Your task to perform on an android device: Open the map Image 0: 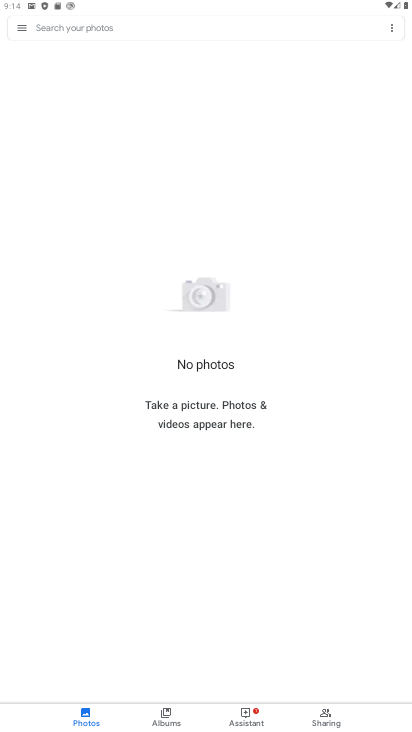
Step 0: press home button
Your task to perform on an android device: Open the map Image 1: 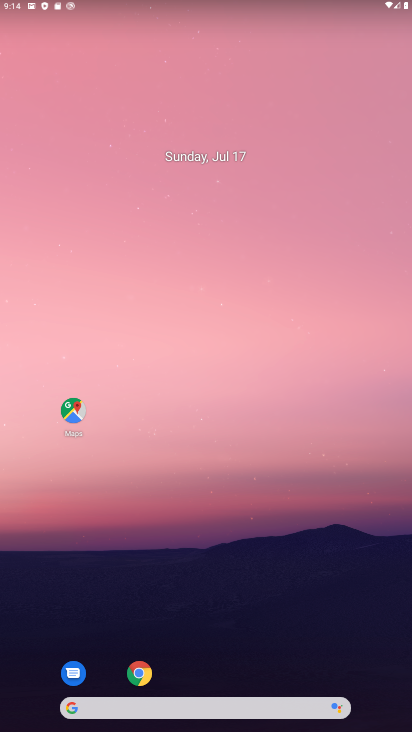
Step 1: click (74, 411)
Your task to perform on an android device: Open the map Image 2: 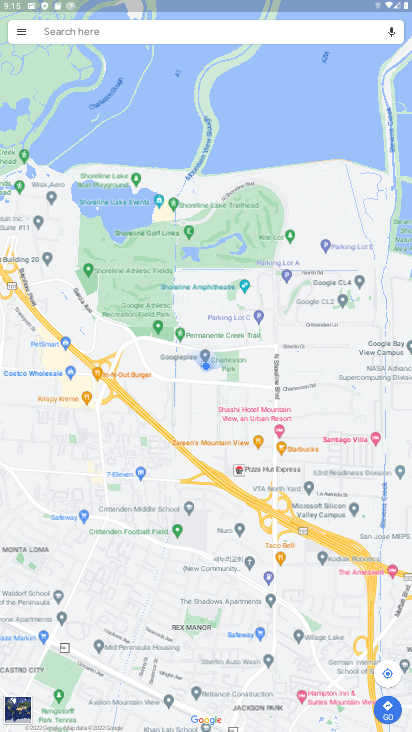
Step 2: task complete